Your task to perform on an android device: choose inbox layout in the gmail app Image 0: 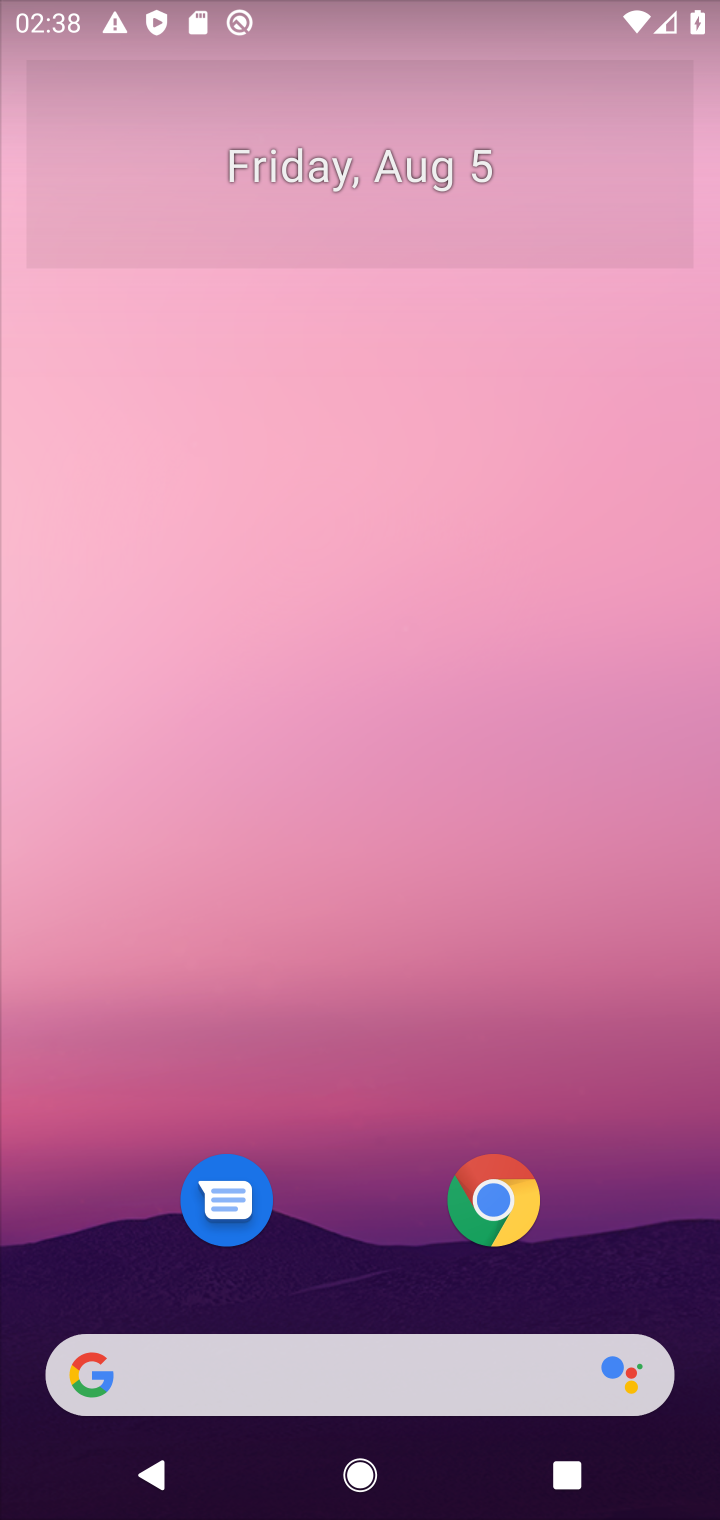
Step 0: drag from (397, 1211) to (345, 251)
Your task to perform on an android device: choose inbox layout in the gmail app Image 1: 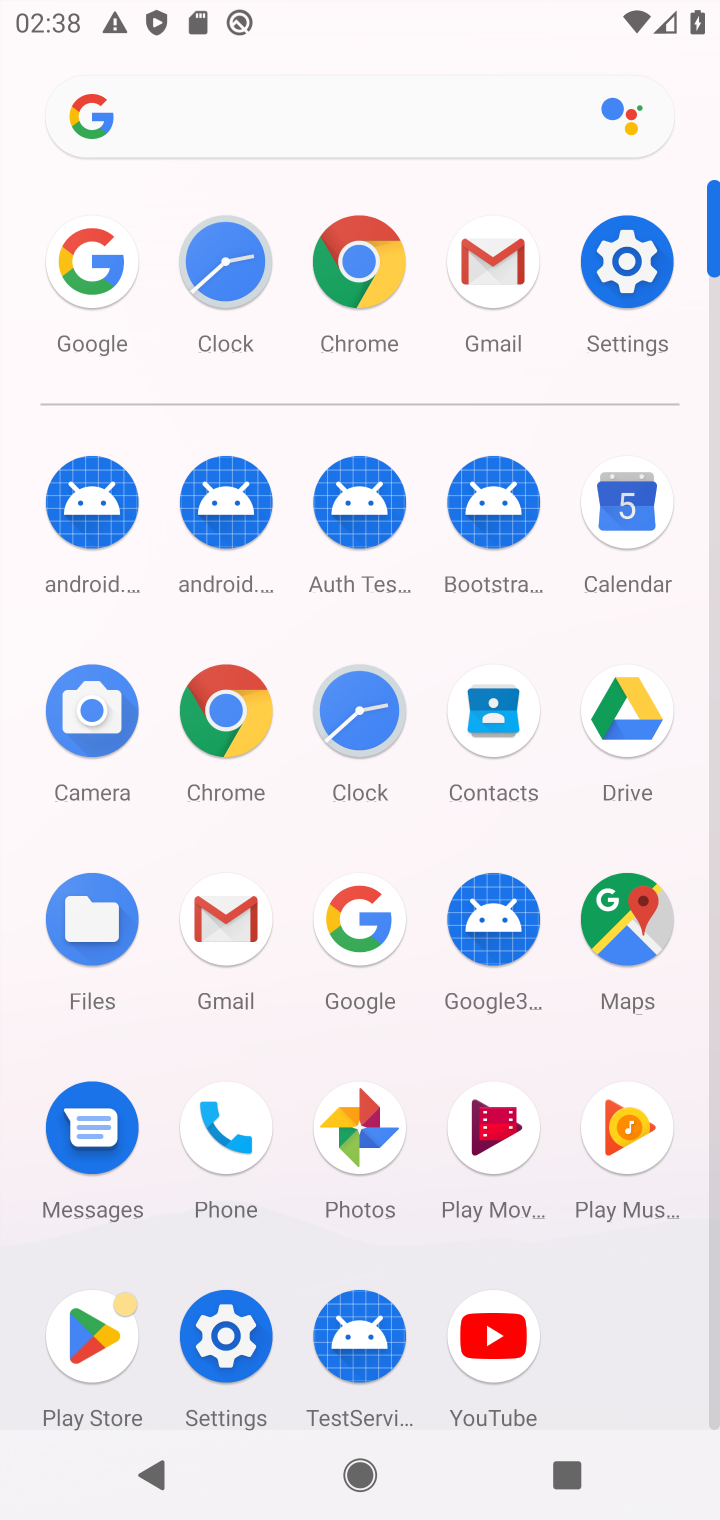
Step 1: click (492, 276)
Your task to perform on an android device: choose inbox layout in the gmail app Image 2: 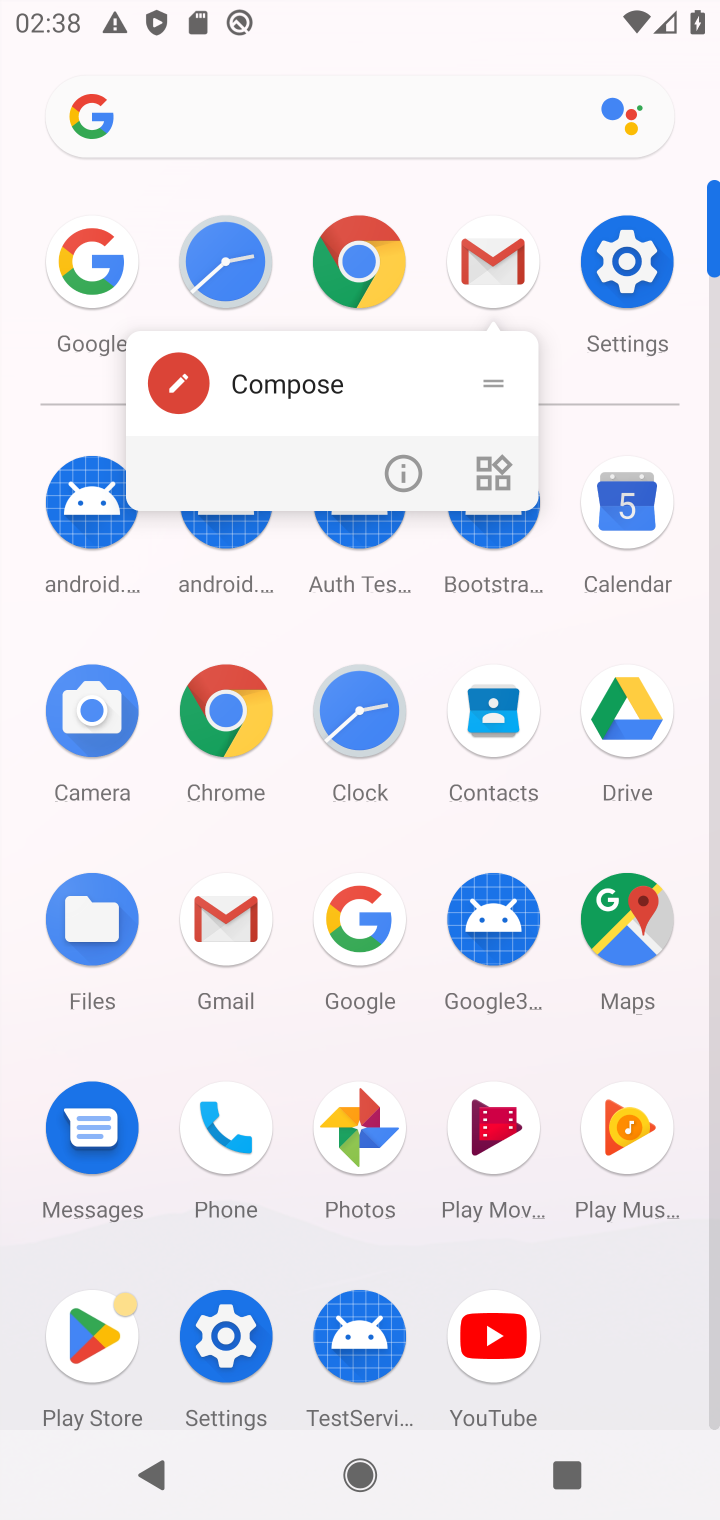
Step 2: click (492, 276)
Your task to perform on an android device: choose inbox layout in the gmail app Image 3: 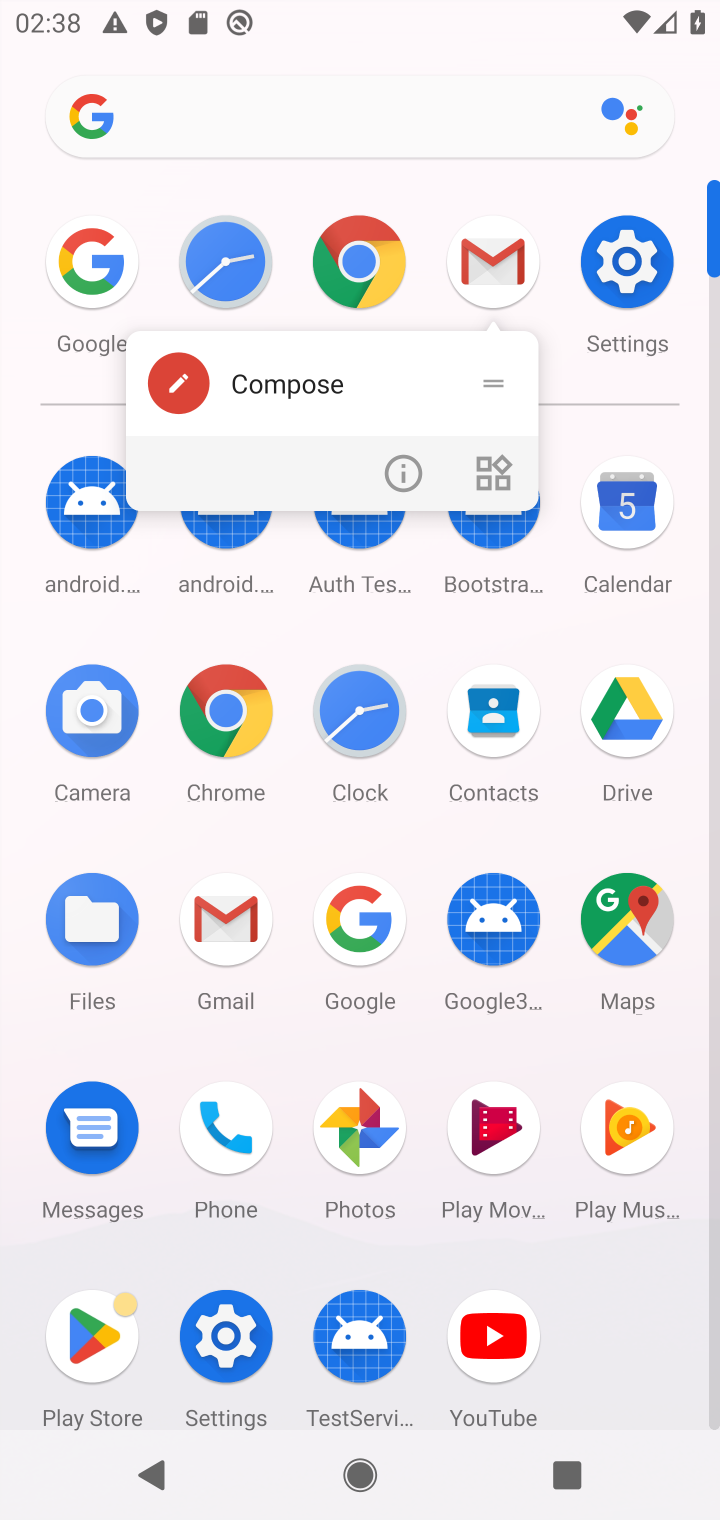
Step 3: click (492, 276)
Your task to perform on an android device: choose inbox layout in the gmail app Image 4: 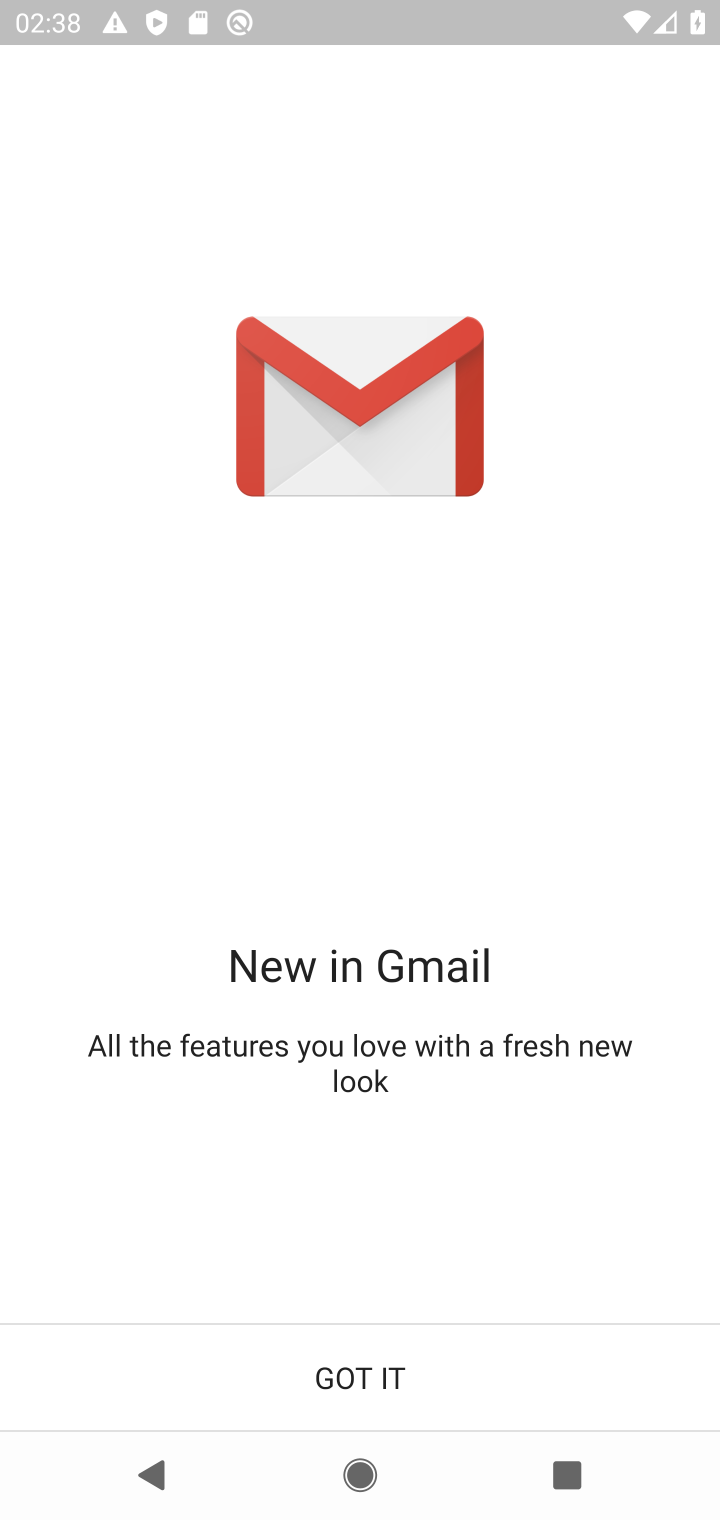
Step 4: click (435, 1338)
Your task to perform on an android device: choose inbox layout in the gmail app Image 5: 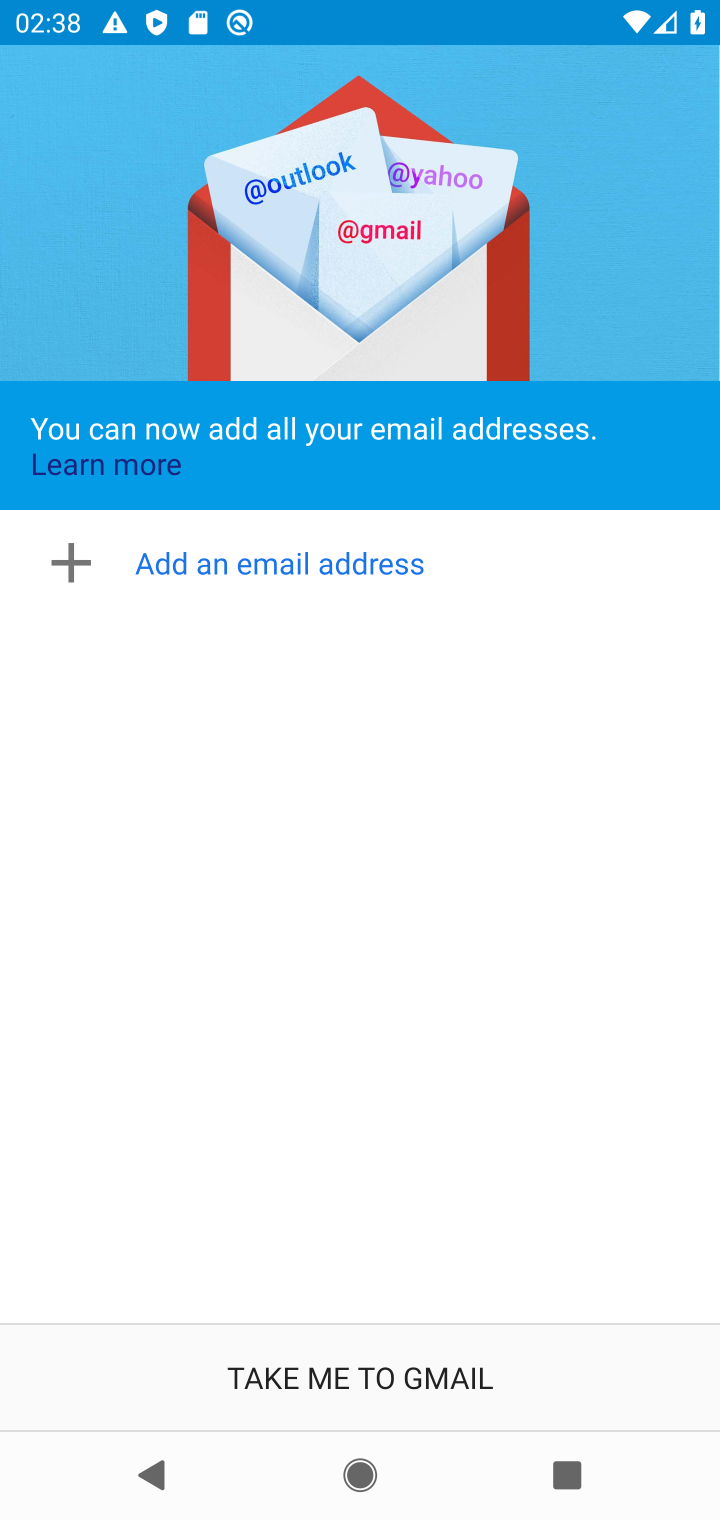
Step 5: click (380, 1379)
Your task to perform on an android device: choose inbox layout in the gmail app Image 6: 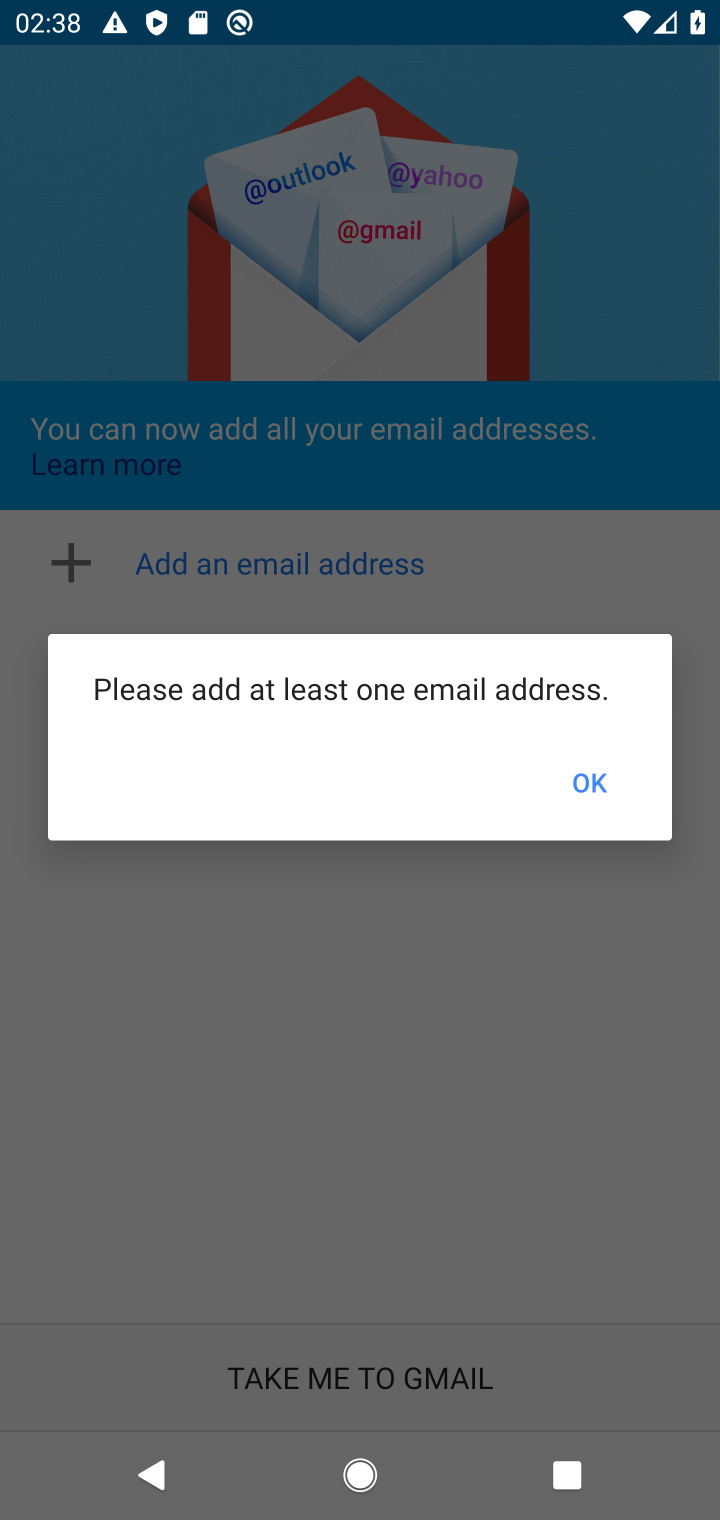
Step 6: task complete